Your task to perform on an android device: snooze an email in the gmail app Image 0: 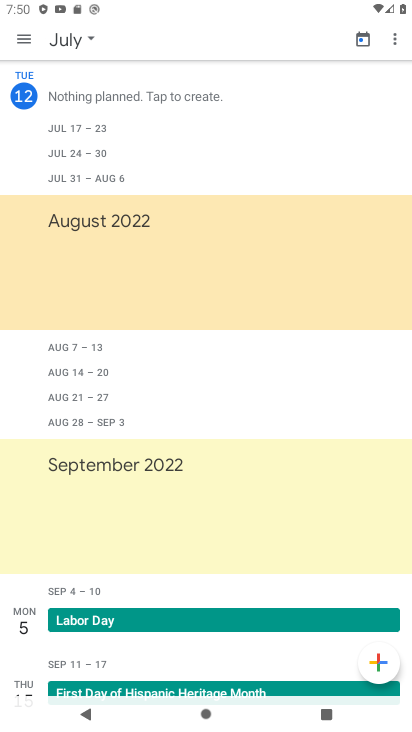
Step 0: press home button
Your task to perform on an android device: snooze an email in the gmail app Image 1: 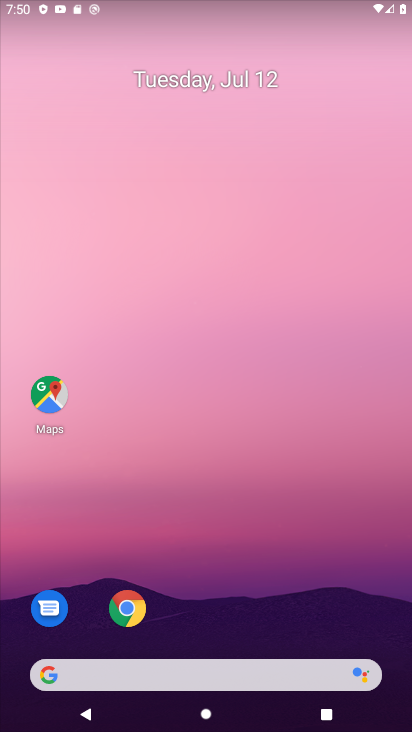
Step 1: drag from (209, 670) to (338, 139)
Your task to perform on an android device: snooze an email in the gmail app Image 2: 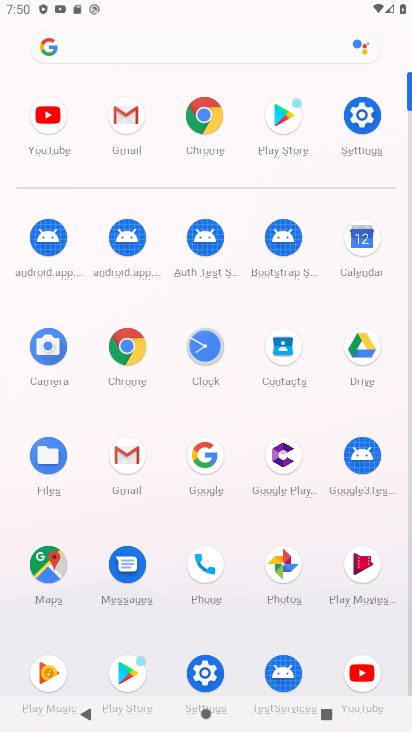
Step 2: click (127, 114)
Your task to perform on an android device: snooze an email in the gmail app Image 3: 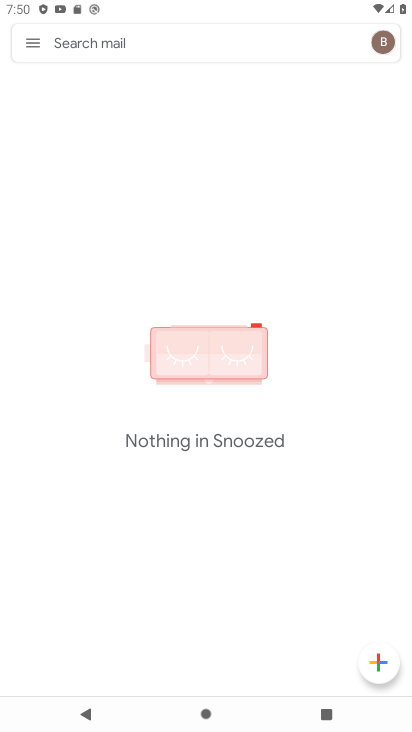
Step 3: task complete